Your task to perform on an android device: Open Google Image 0: 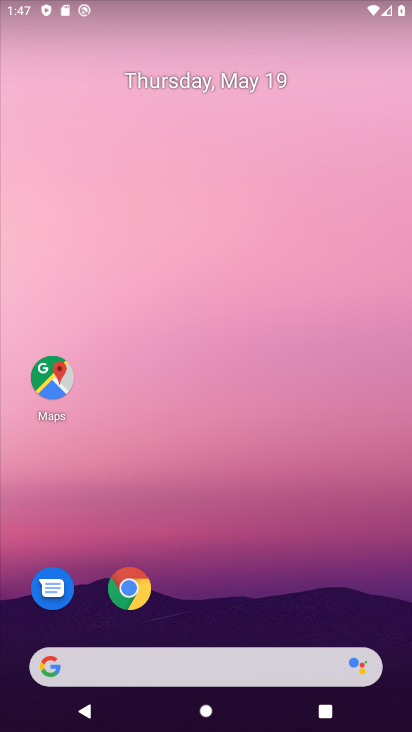
Step 0: drag from (227, 524) to (234, 133)
Your task to perform on an android device: Open Google Image 1: 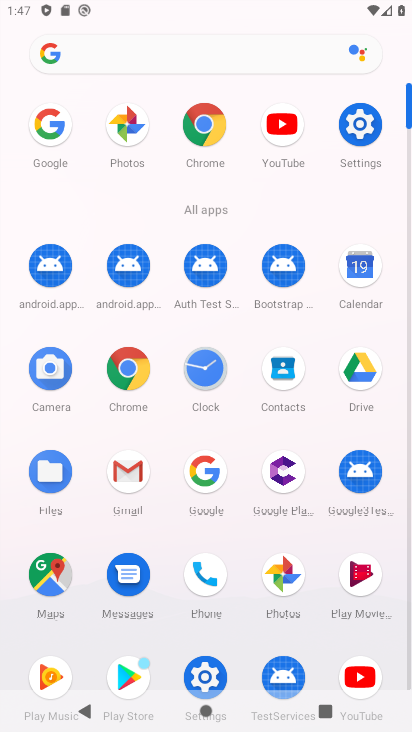
Step 1: click (59, 127)
Your task to perform on an android device: Open Google Image 2: 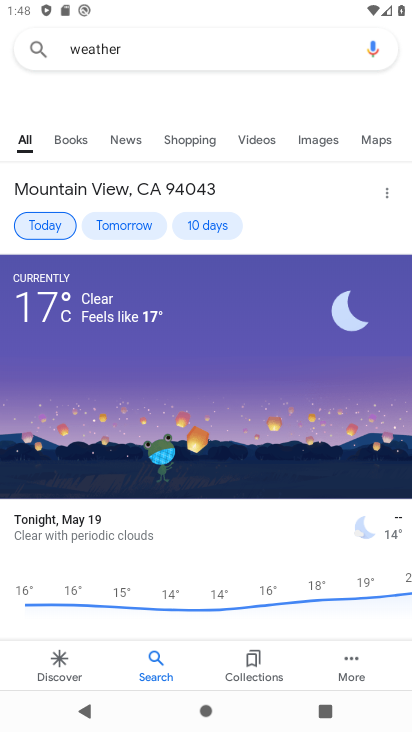
Step 2: task complete